Your task to perform on an android device: Search for vegetarian restaurants on Maps Image 0: 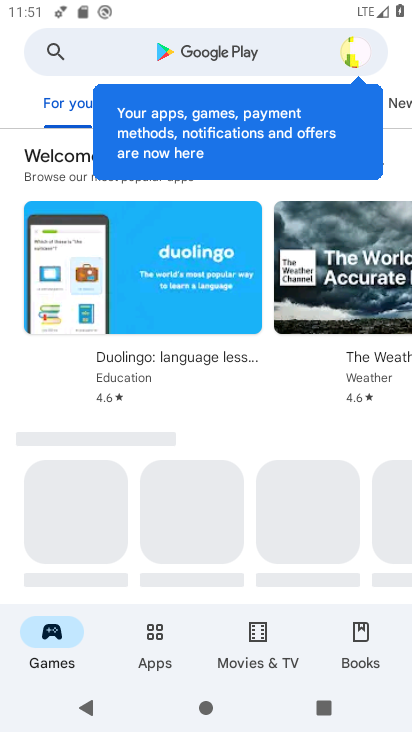
Step 0: press home button
Your task to perform on an android device: Search for vegetarian restaurants on Maps Image 1: 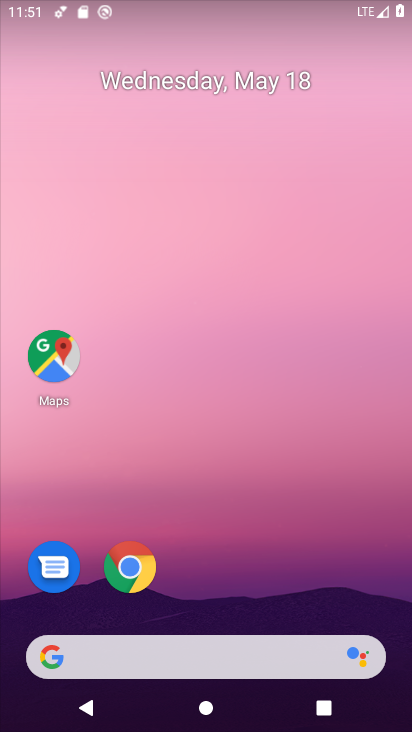
Step 1: drag from (298, 576) to (388, 45)
Your task to perform on an android device: Search for vegetarian restaurants on Maps Image 2: 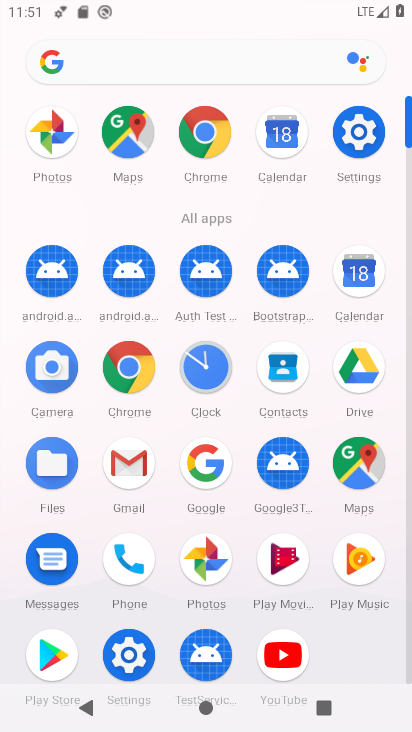
Step 2: click (374, 467)
Your task to perform on an android device: Search for vegetarian restaurants on Maps Image 3: 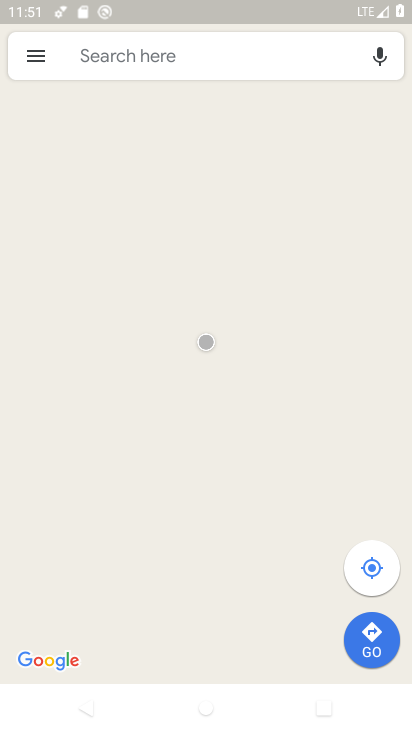
Step 3: click (166, 46)
Your task to perform on an android device: Search for vegetarian restaurants on Maps Image 4: 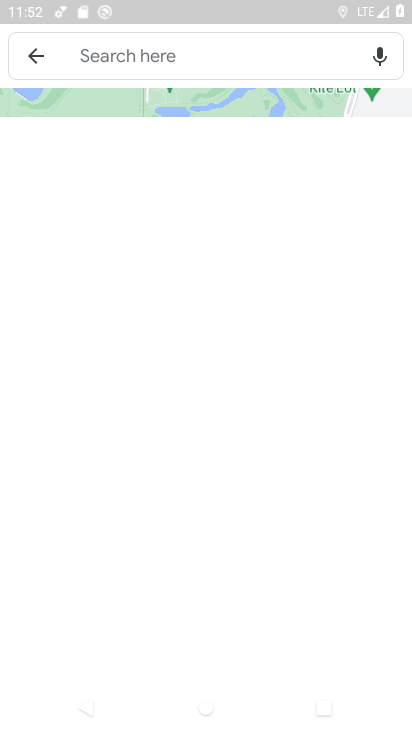
Step 4: click (178, 62)
Your task to perform on an android device: Search for vegetarian restaurants on Maps Image 5: 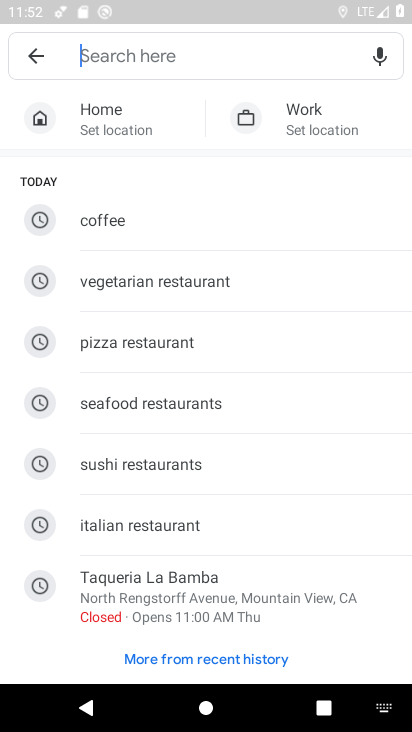
Step 5: click (182, 292)
Your task to perform on an android device: Search for vegetarian restaurants on Maps Image 6: 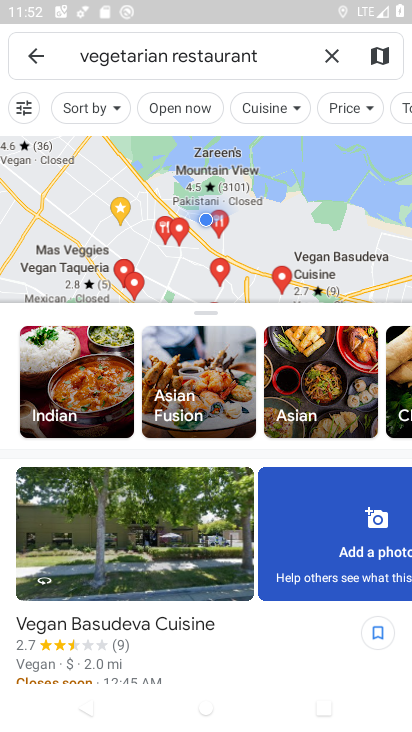
Step 6: task complete